Your task to perform on an android device: turn off sleep mode Image 0: 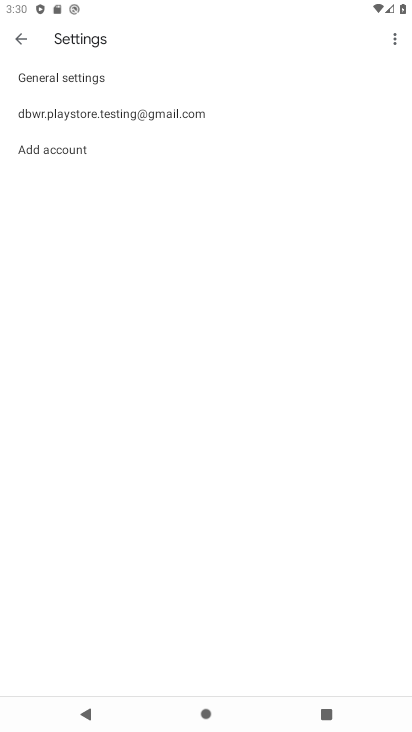
Step 0: press home button
Your task to perform on an android device: turn off sleep mode Image 1: 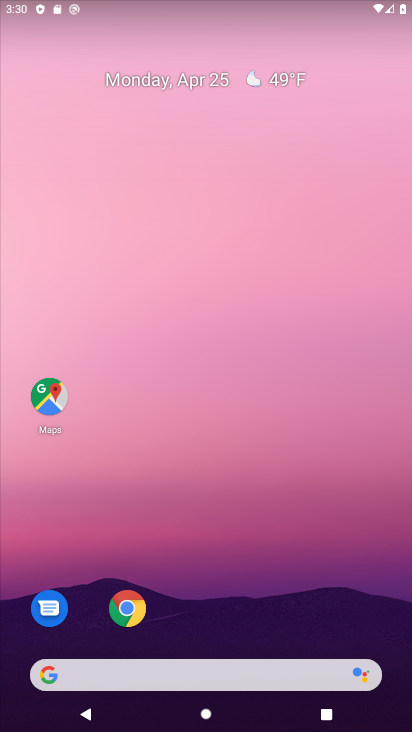
Step 1: drag from (273, 377) to (289, 239)
Your task to perform on an android device: turn off sleep mode Image 2: 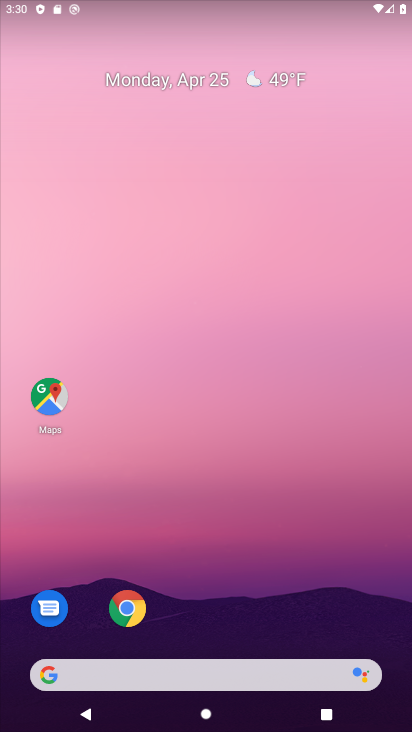
Step 2: drag from (216, 676) to (256, 235)
Your task to perform on an android device: turn off sleep mode Image 3: 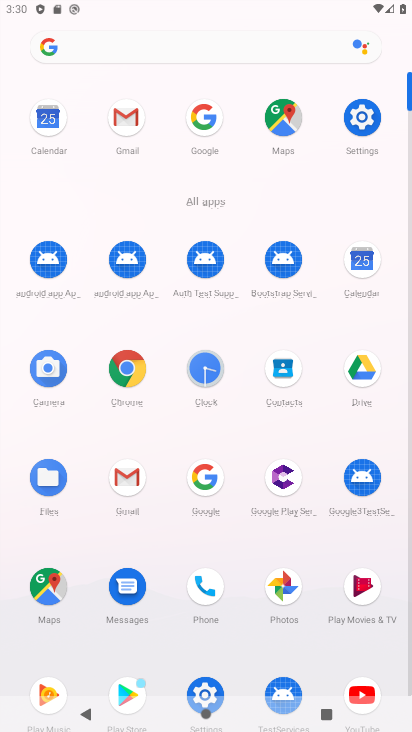
Step 3: click (376, 142)
Your task to perform on an android device: turn off sleep mode Image 4: 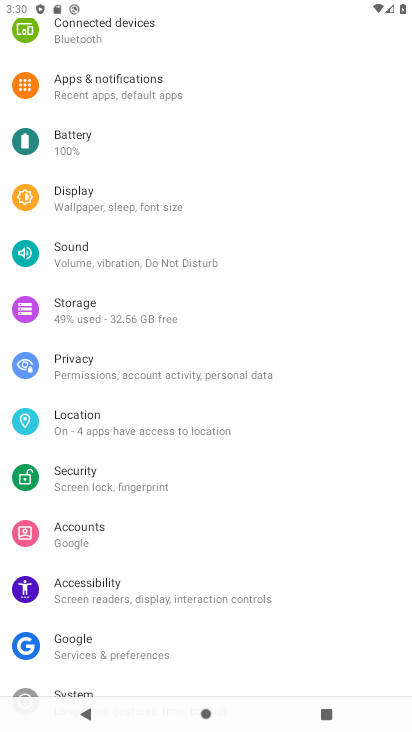
Step 4: click (161, 185)
Your task to perform on an android device: turn off sleep mode Image 5: 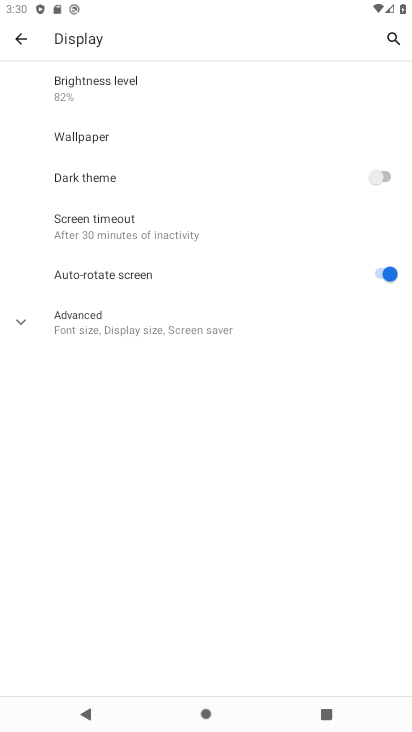
Step 5: click (142, 325)
Your task to perform on an android device: turn off sleep mode Image 6: 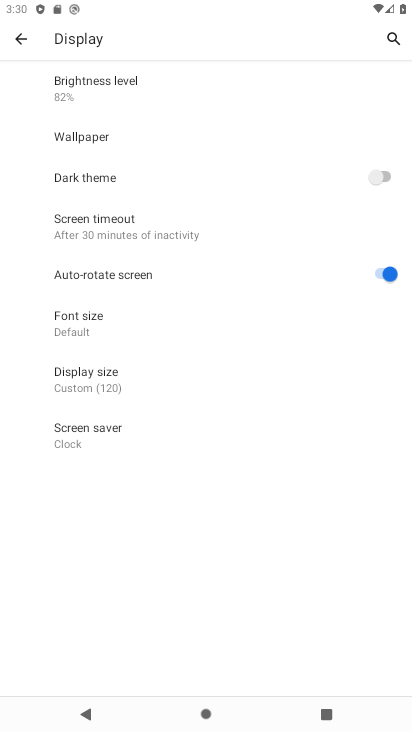
Step 6: task complete